Your task to perform on an android device: turn on javascript in the chrome app Image 0: 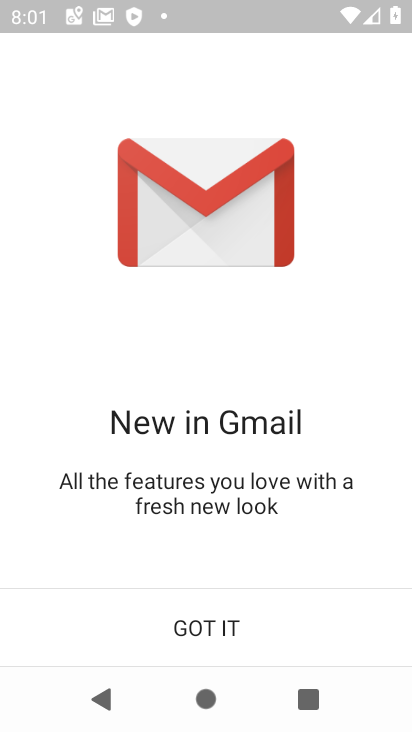
Step 0: click (292, 652)
Your task to perform on an android device: turn on javascript in the chrome app Image 1: 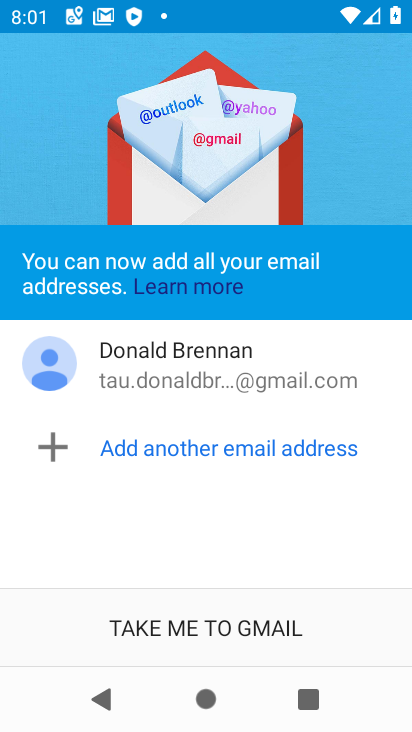
Step 1: click (228, 634)
Your task to perform on an android device: turn on javascript in the chrome app Image 2: 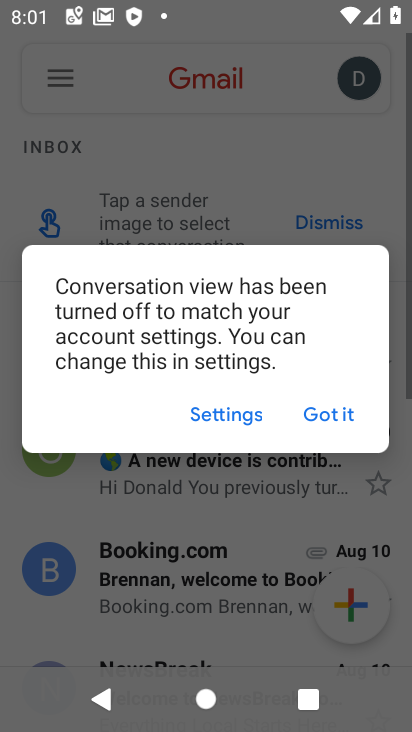
Step 2: click (307, 412)
Your task to perform on an android device: turn on javascript in the chrome app Image 3: 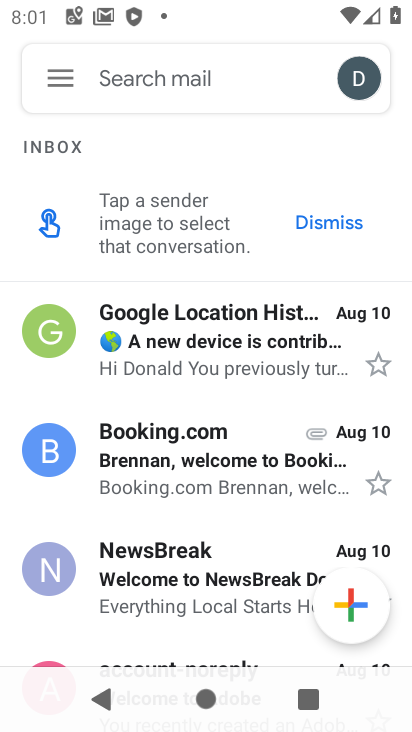
Step 3: press home button
Your task to perform on an android device: turn on javascript in the chrome app Image 4: 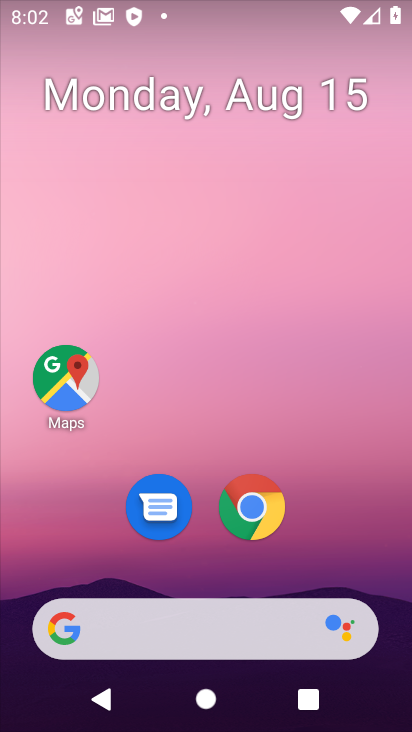
Step 4: drag from (351, 557) to (327, 89)
Your task to perform on an android device: turn on javascript in the chrome app Image 5: 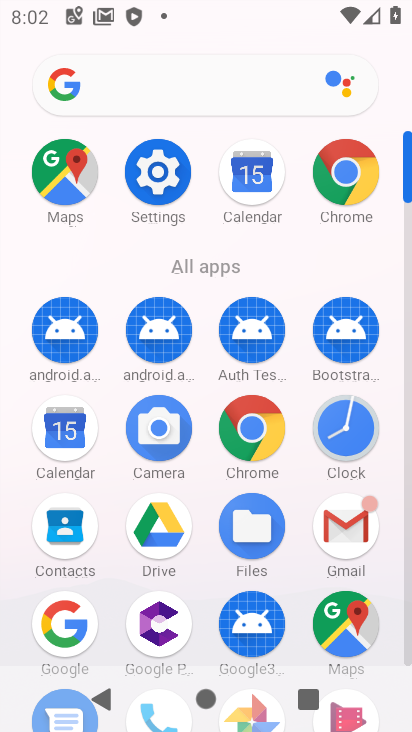
Step 5: click (161, 187)
Your task to perform on an android device: turn on javascript in the chrome app Image 6: 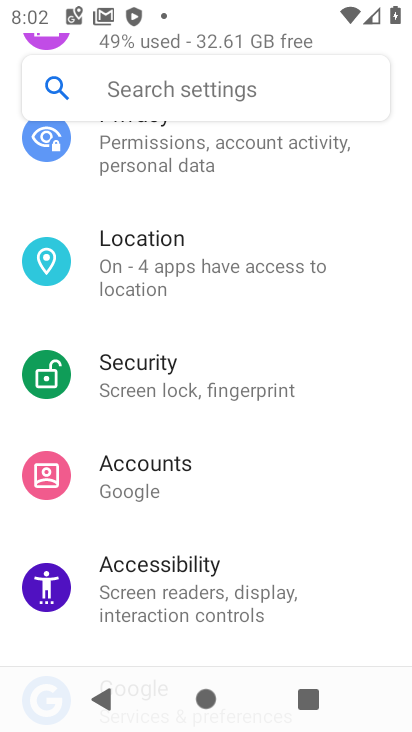
Step 6: press home button
Your task to perform on an android device: turn on javascript in the chrome app Image 7: 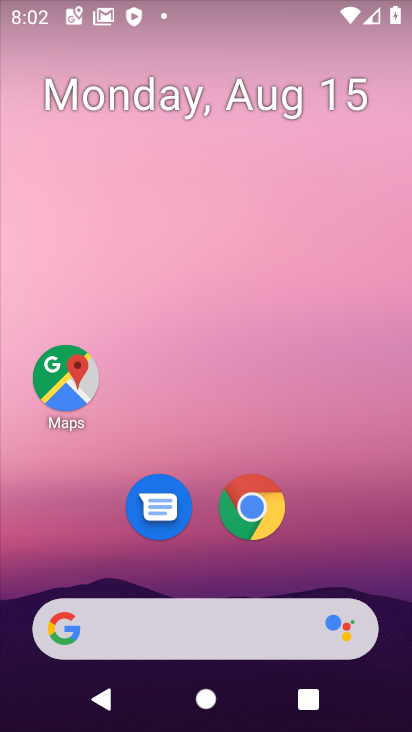
Step 7: drag from (328, 586) to (285, 224)
Your task to perform on an android device: turn on javascript in the chrome app Image 8: 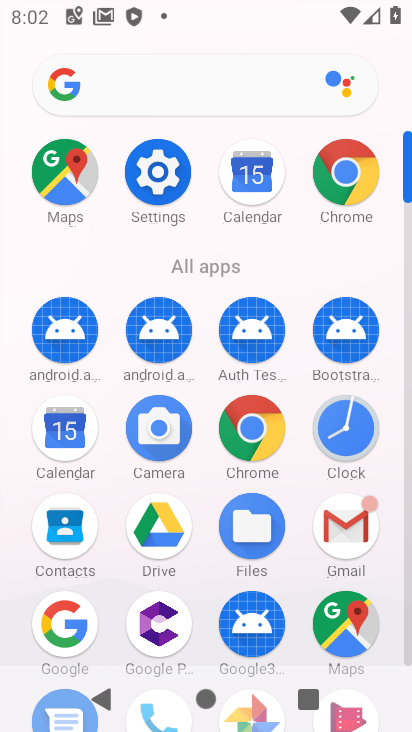
Step 8: click (328, 182)
Your task to perform on an android device: turn on javascript in the chrome app Image 9: 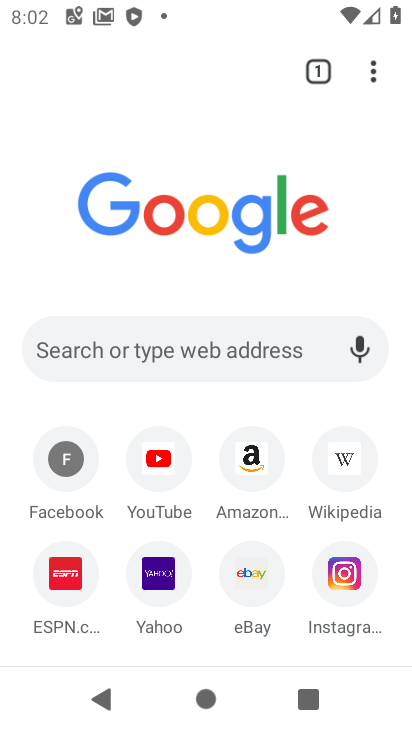
Step 9: click (375, 60)
Your task to perform on an android device: turn on javascript in the chrome app Image 10: 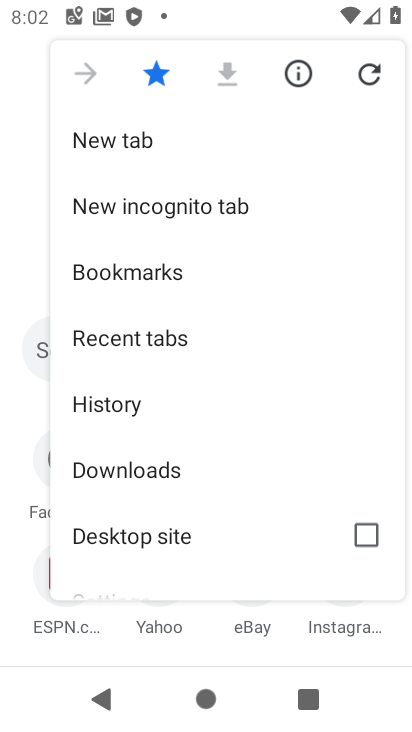
Step 10: drag from (228, 576) to (226, 177)
Your task to perform on an android device: turn on javascript in the chrome app Image 11: 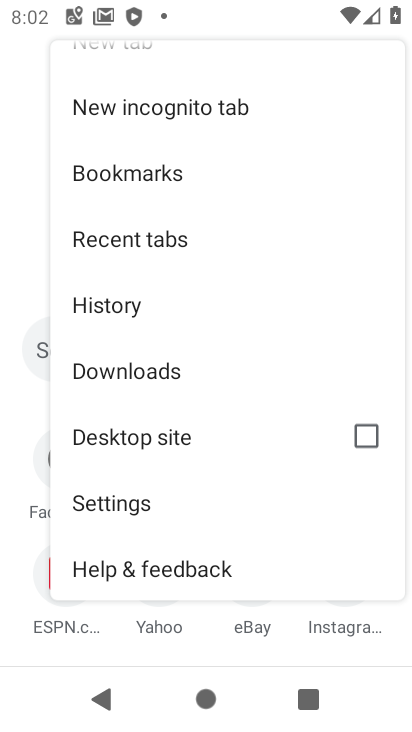
Step 11: click (209, 492)
Your task to perform on an android device: turn on javascript in the chrome app Image 12: 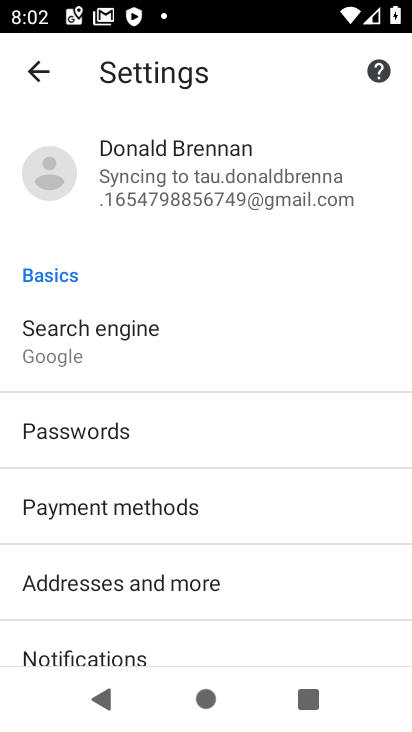
Step 12: drag from (262, 597) to (256, 369)
Your task to perform on an android device: turn on javascript in the chrome app Image 13: 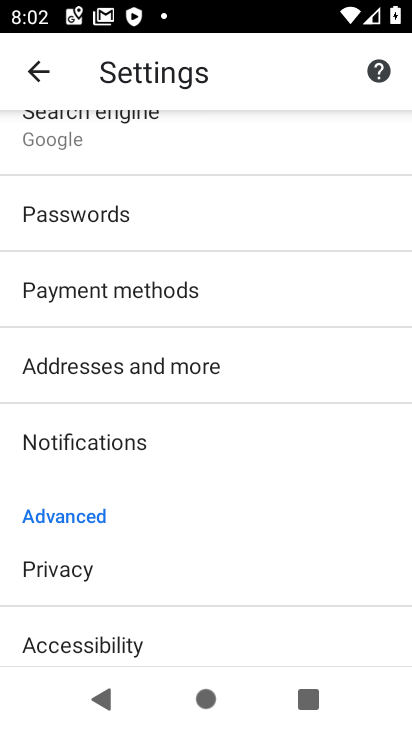
Step 13: drag from (239, 641) to (240, 264)
Your task to perform on an android device: turn on javascript in the chrome app Image 14: 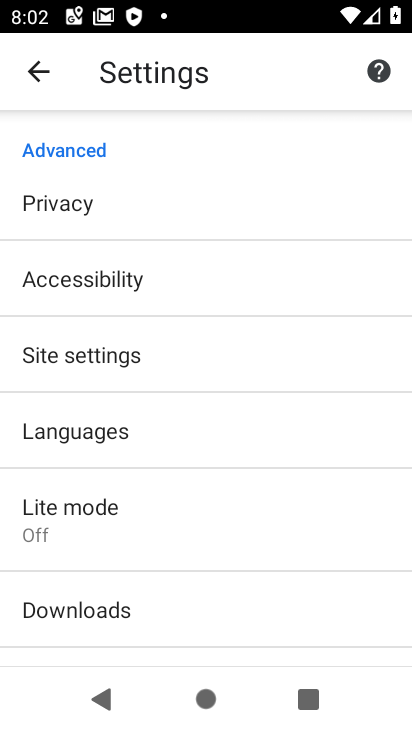
Step 14: click (210, 452)
Your task to perform on an android device: turn on javascript in the chrome app Image 15: 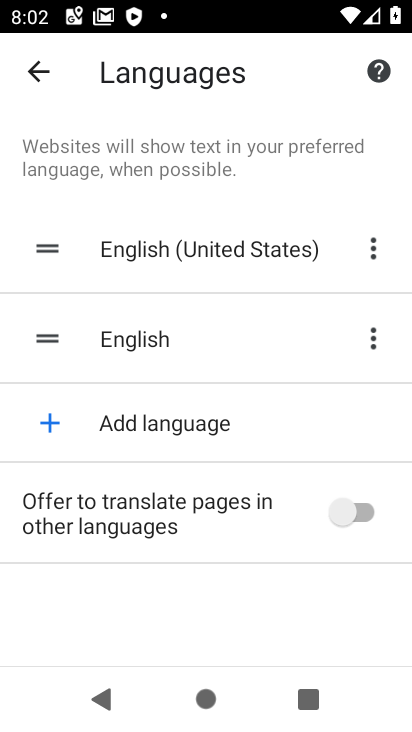
Step 15: task complete